Your task to perform on an android device: check battery use Image 0: 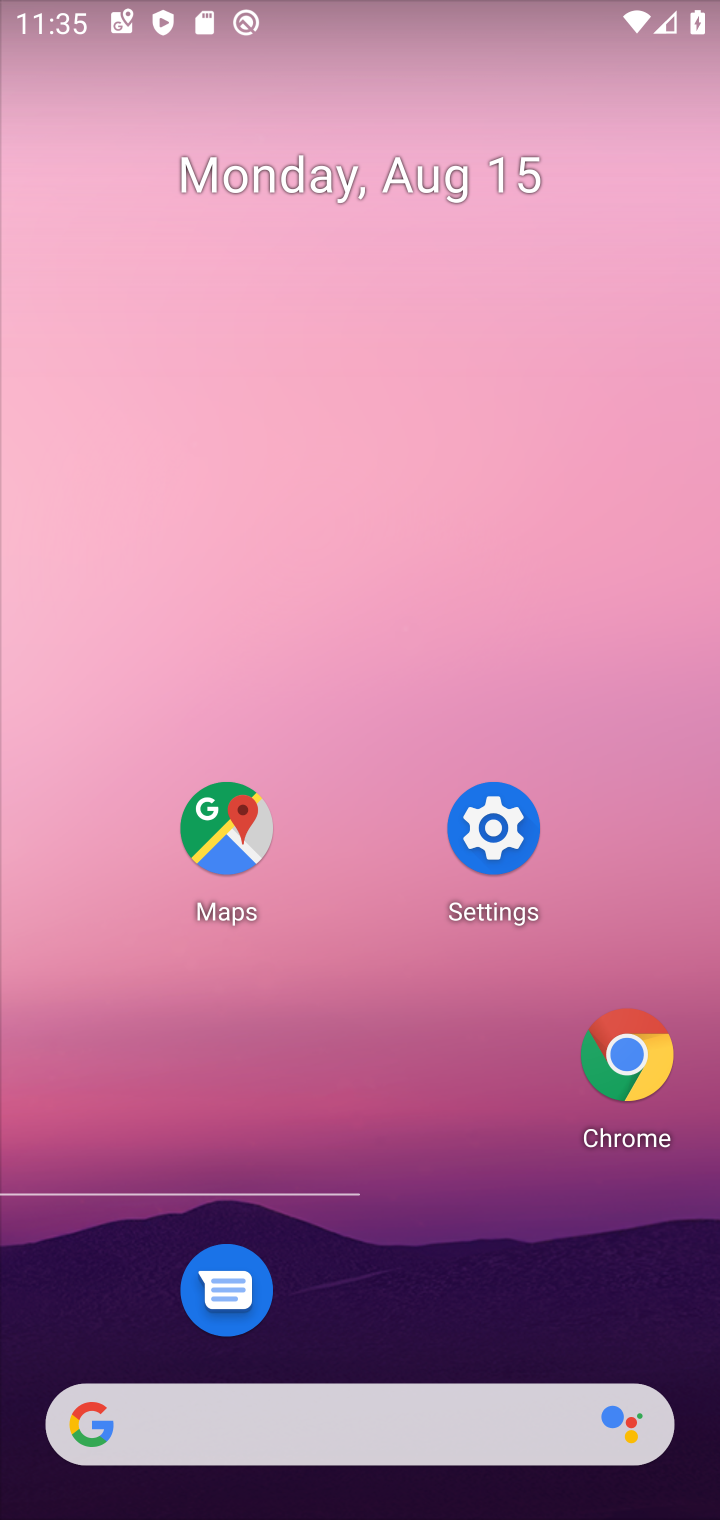
Step 0: click (493, 830)
Your task to perform on an android device: check battery use Image 1: 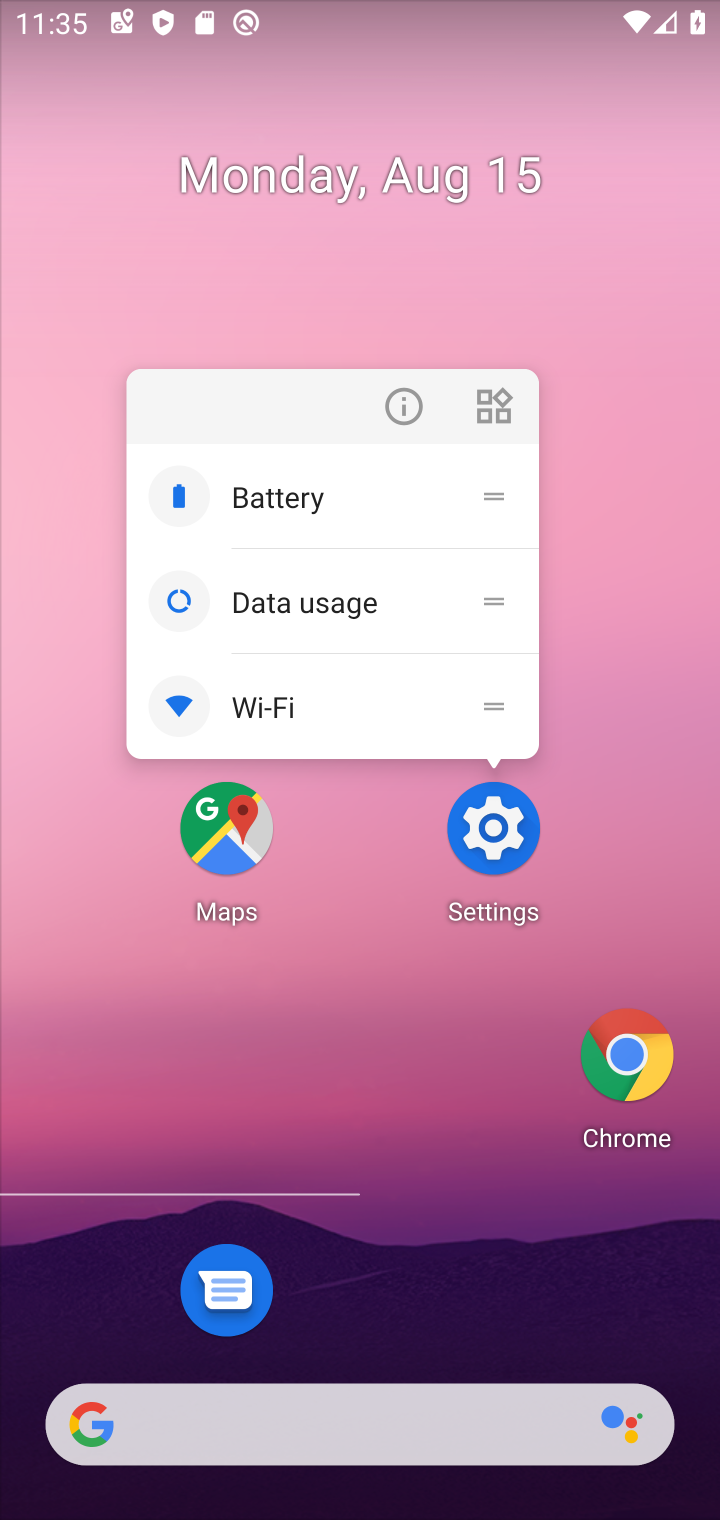
Step 1: click (493, 832)
Your task to perform on an android device: check battery use Image 2: 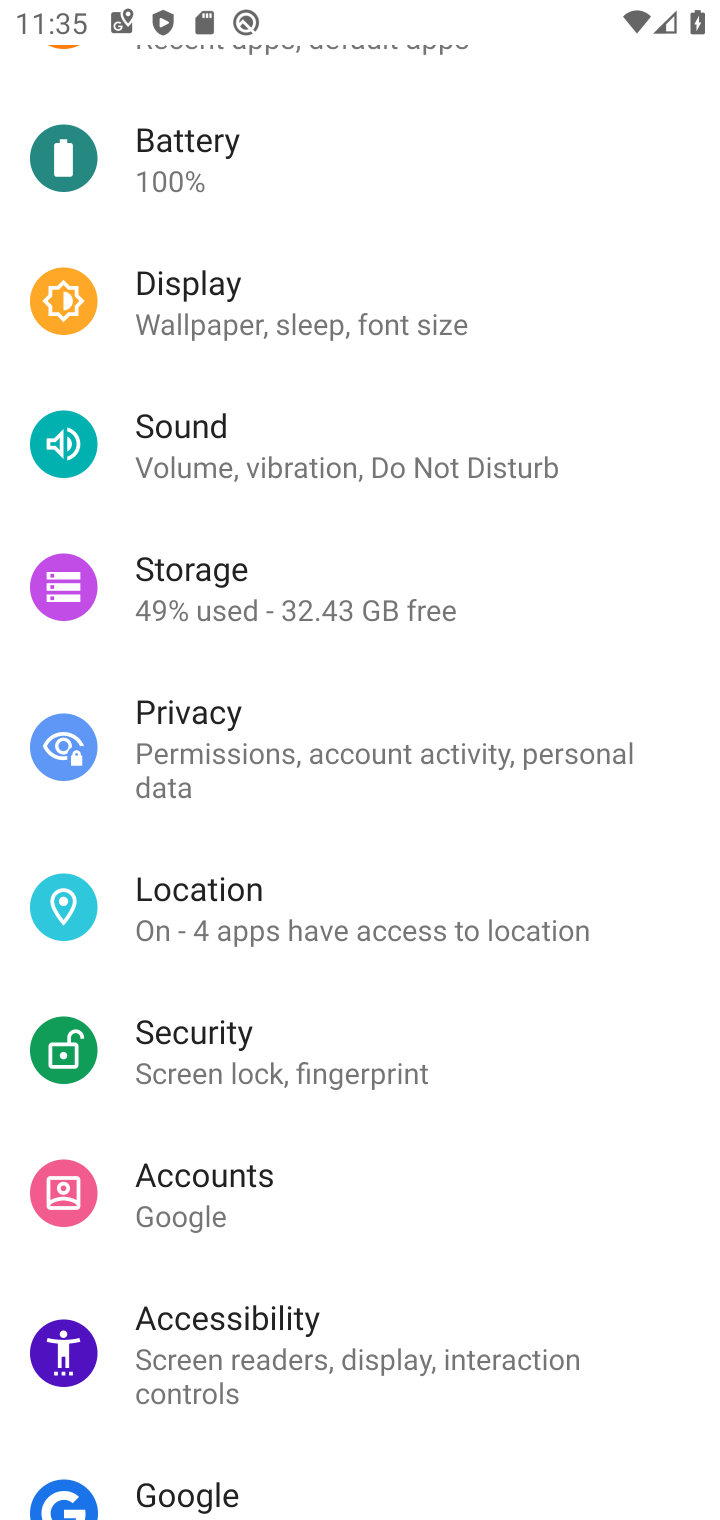
Step 2: click (200, 152)
Your task to perform on an android device: check battery use Image 3: 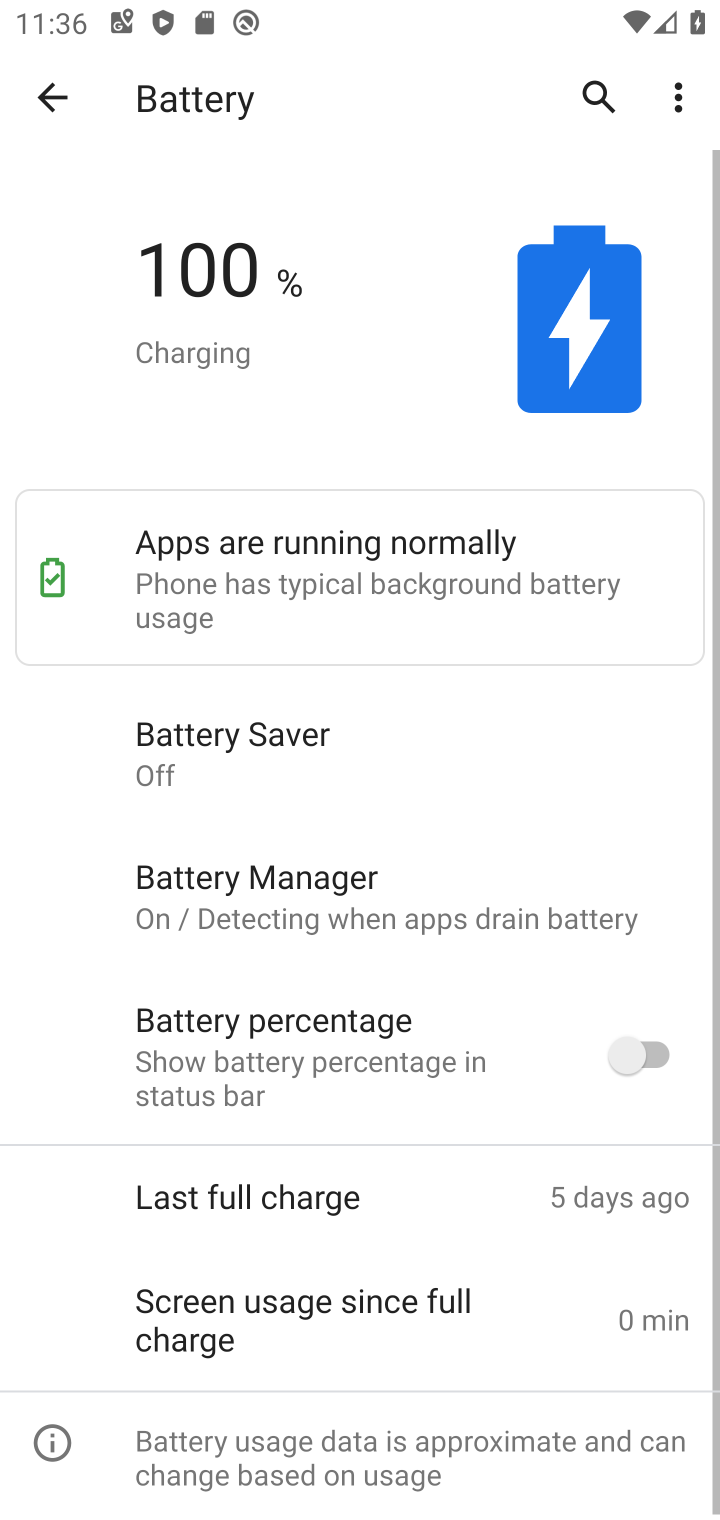
Step 3: click (675, 78)
Your task to perform on an android device: check battery use Image 4: 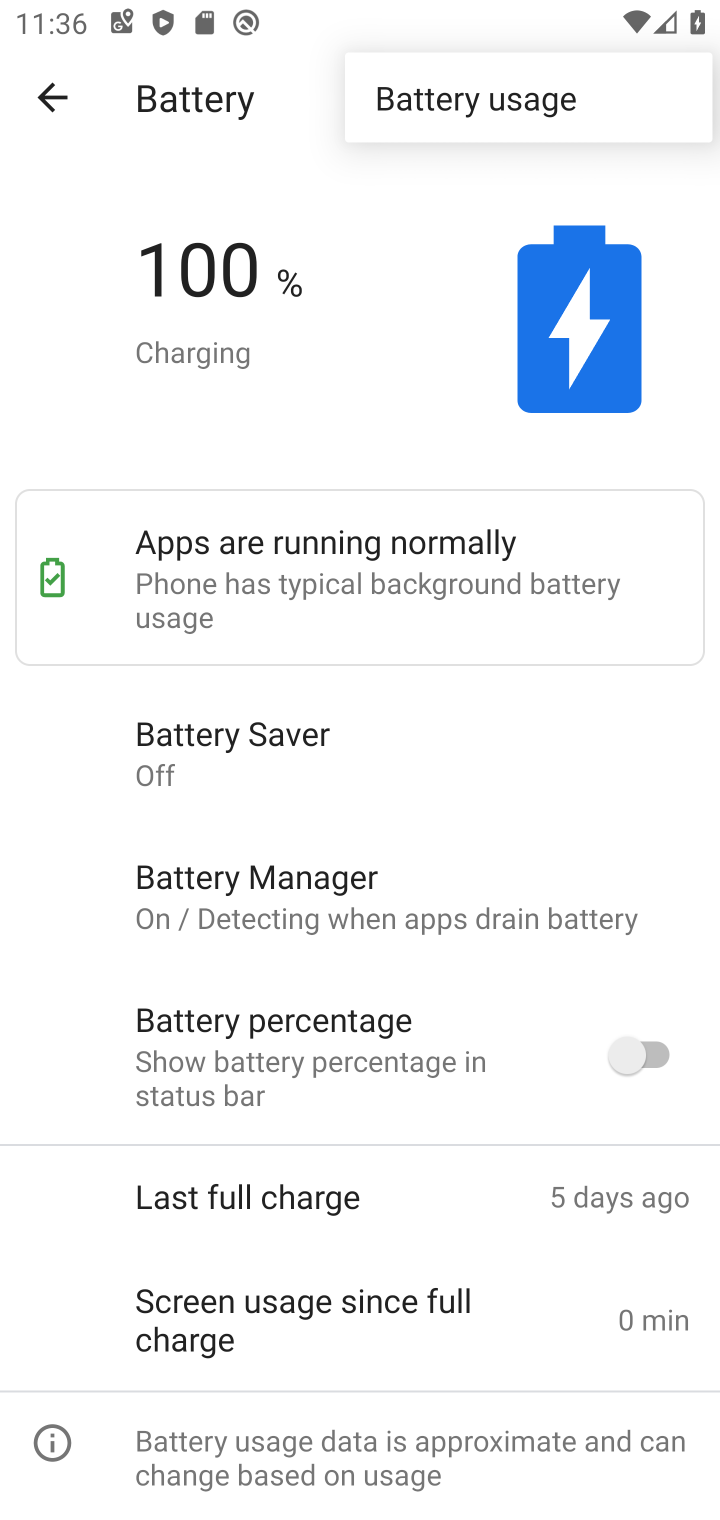
Step 4: click (479, 92)
Your task to perform on an android device: check battery use Image 5: 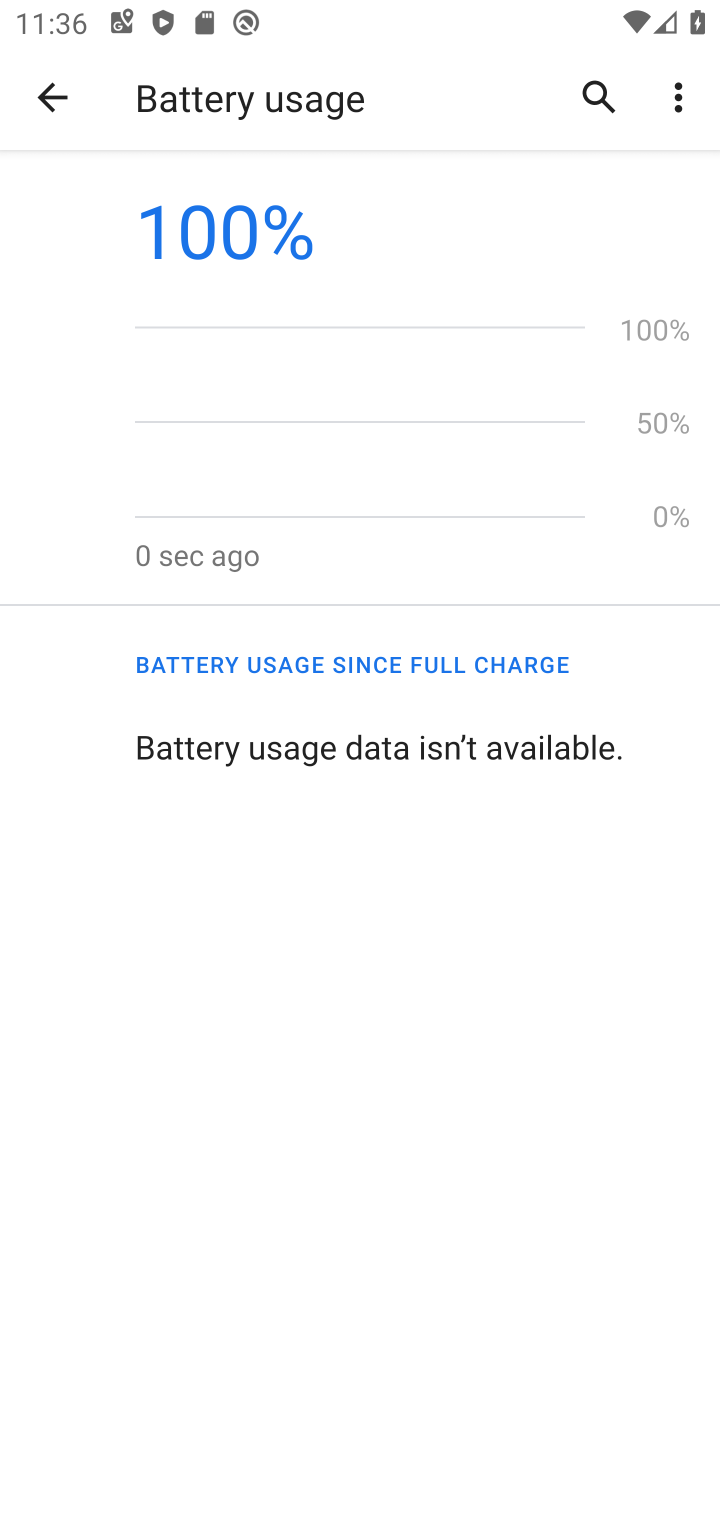
Step 5: task complete